Your task to perform on an android device: Go to Google Image 0: 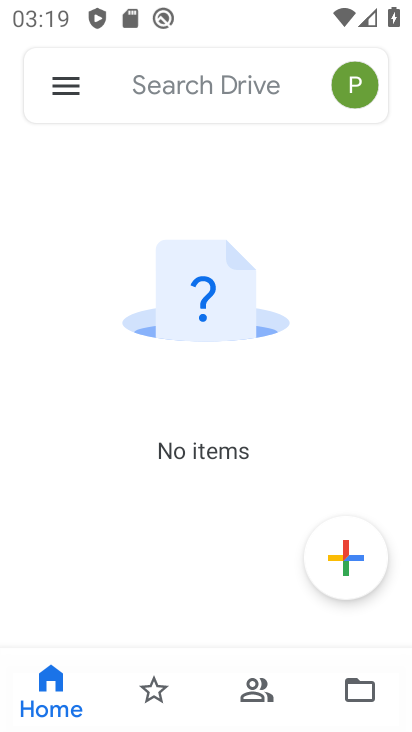
Step 0: press back button
Your task to perform on an android device: Go to Google Image 1: 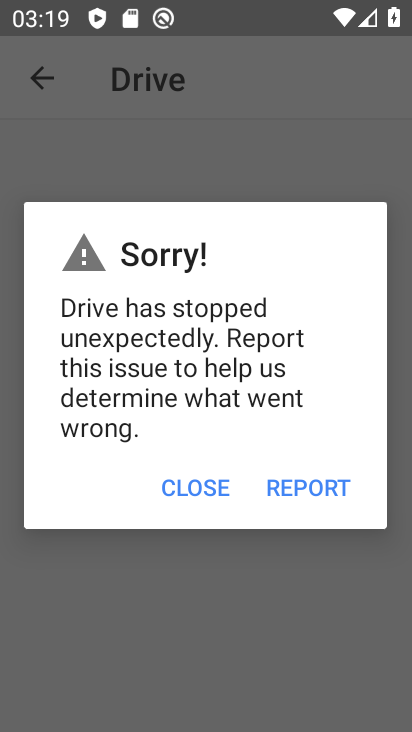
Step 1: press back button
Your task to perform on an android device: Go to Google Image 2: 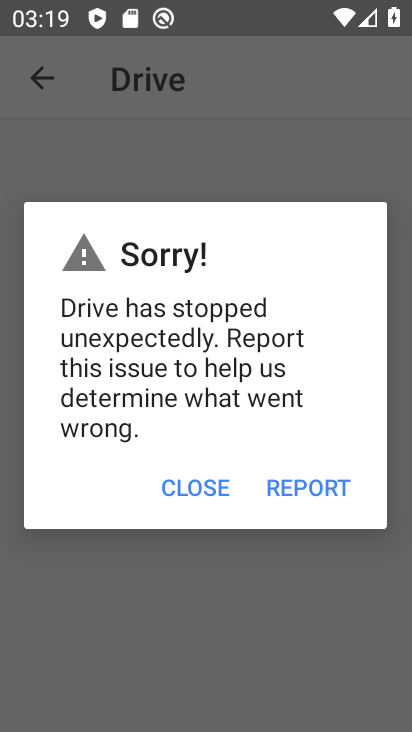
Step 2: press home button
Your task to perform on an android device: Go to Google Image 3: 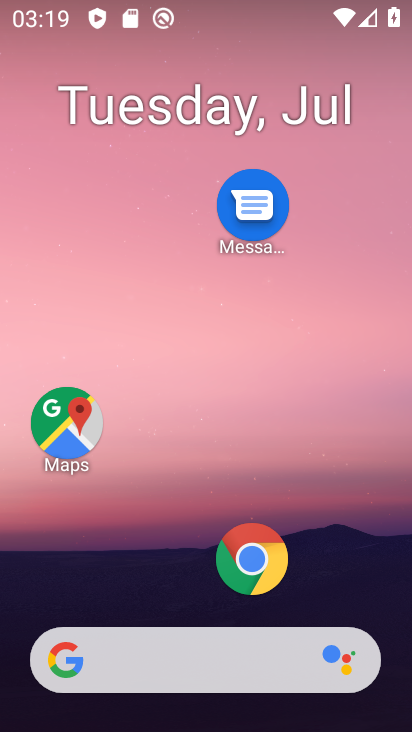
Step 3: click (143, 659)
Your task to perform on an android device: Go to Google Image 4: 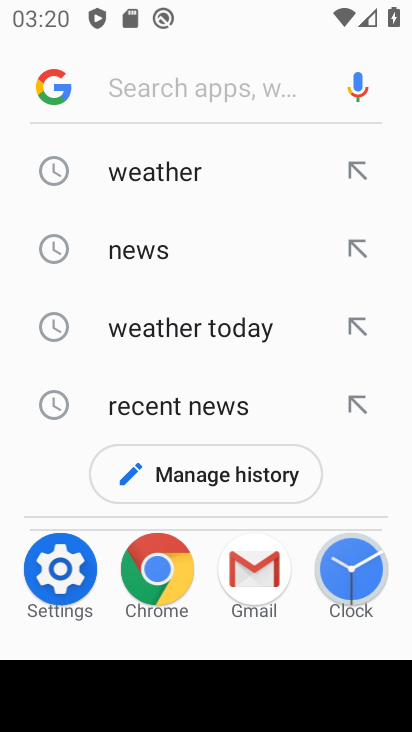
Step 4: task complete